Your task to perform on an android device: check google app version Image 0: 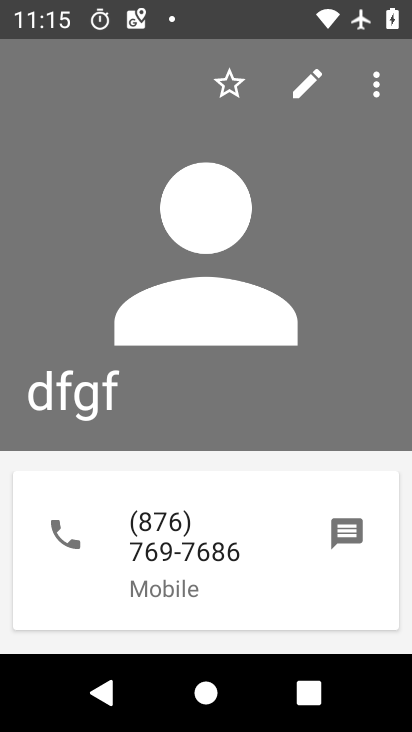
Step 0: press home button
Your task to perform on an android device: check google app version Image 1: 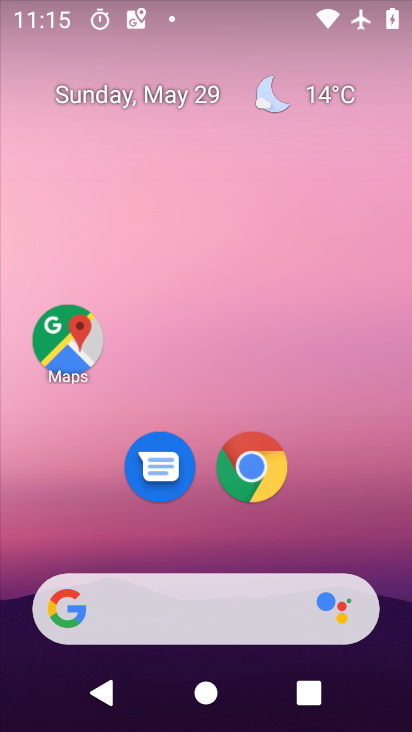
Step 1: drag from (210, 535) to (216, 138)
Your task to perform on an android device: check google app version Image 2: 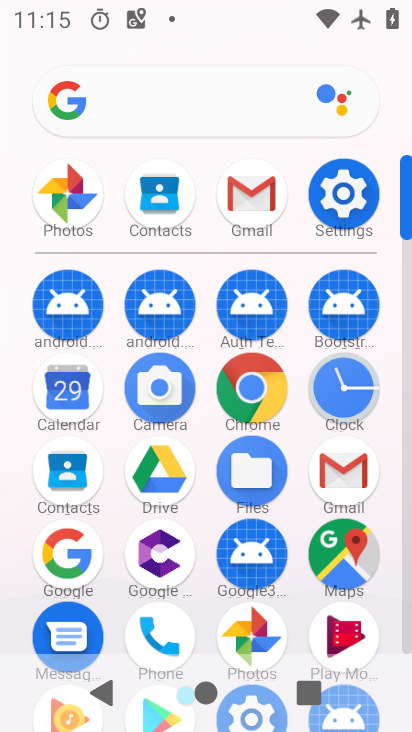
Step 2: click (72, 565)
Your task to perform on an android device: check google app version Image 3: 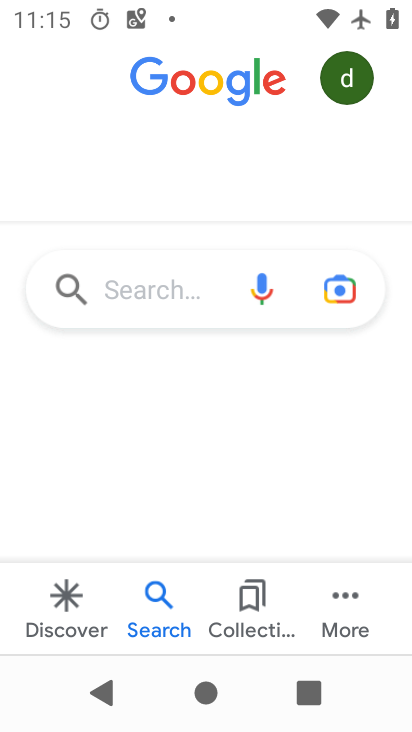
Step 3: click (361, 598)
Your task to perform on an android device: check google app version Image 4: 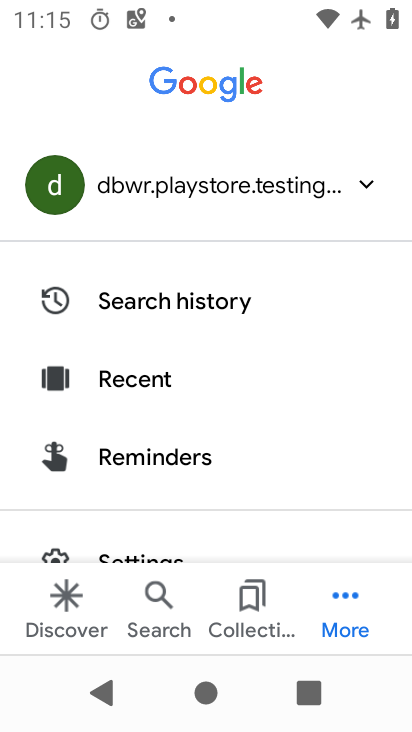
Step 4: drag from (209, 301) to (209, 207)
Your task to perform on an android device: check google app version Image 5: 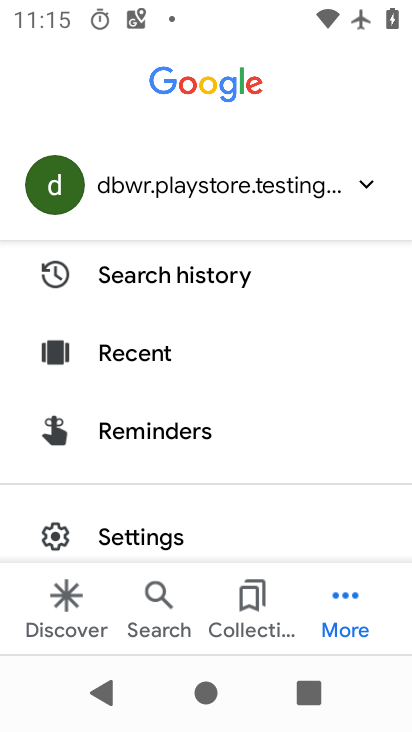
Step 5: drag from (217, 482) to (223, 286)
Your task to perform on an android device: check google app version Image 6: 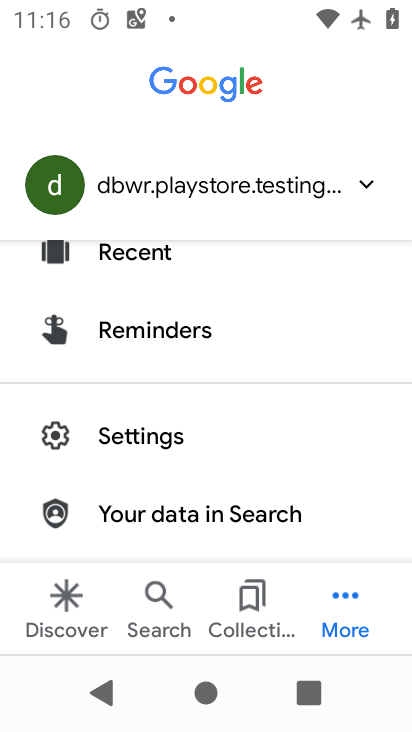
Step 6: click (181, 434)
Your task to perform on an android device: check google app version Image 7: 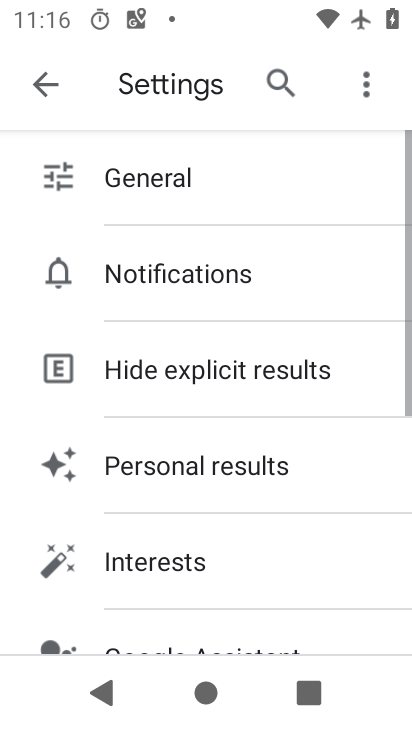
Step 7: drag from (200, 510) to (204, 211)
Your task to perform on an android device: check google app version Image 8: 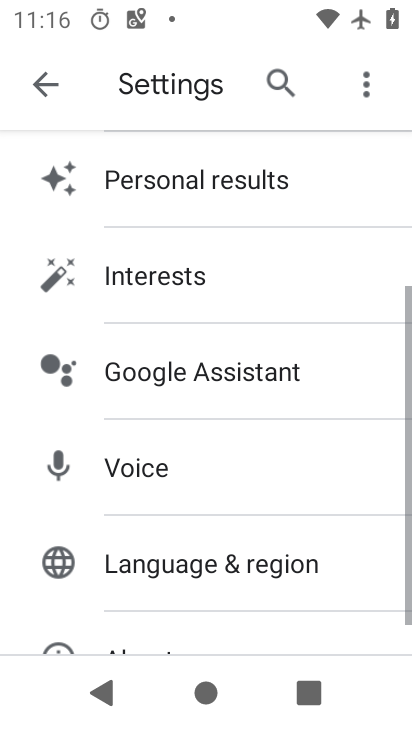
Step 8: drag from (225, 501) to (215, 225)
Your task to perform on an android device: check google app version Image 9: 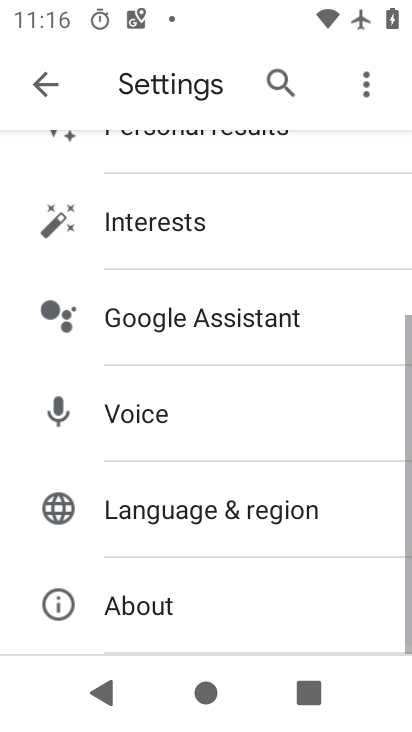
Step 9: drag from (229, 578) to (239, 288)
Your task to perform on an android device: check google app version Image 10: 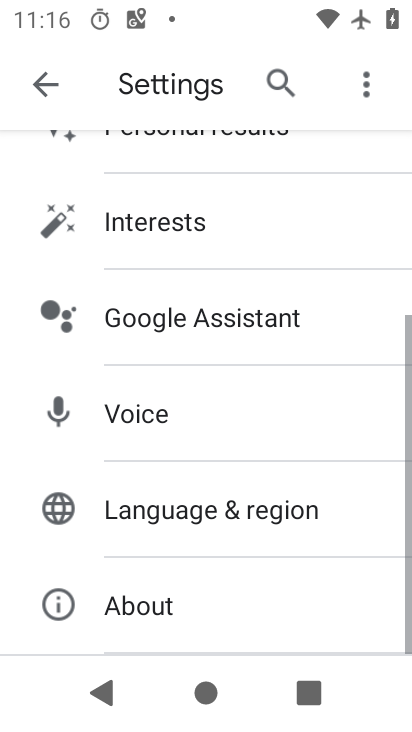
Step 10: click (219, 620)
Your task to perform on an android device: check google app version Image 11: 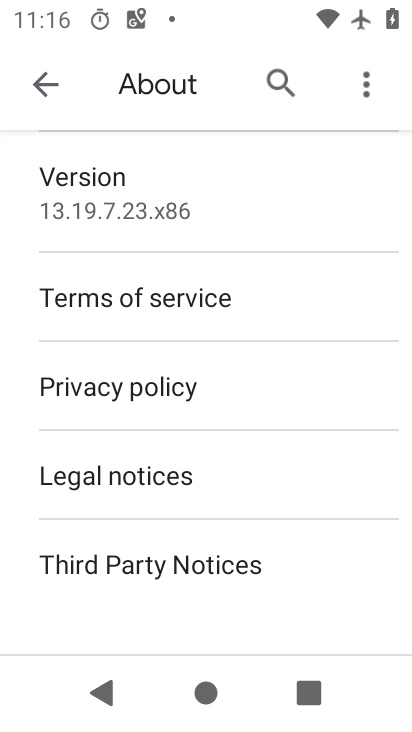
Step 11: click (167, 202)
Your task to perform on an android device: check google app version Image 12: 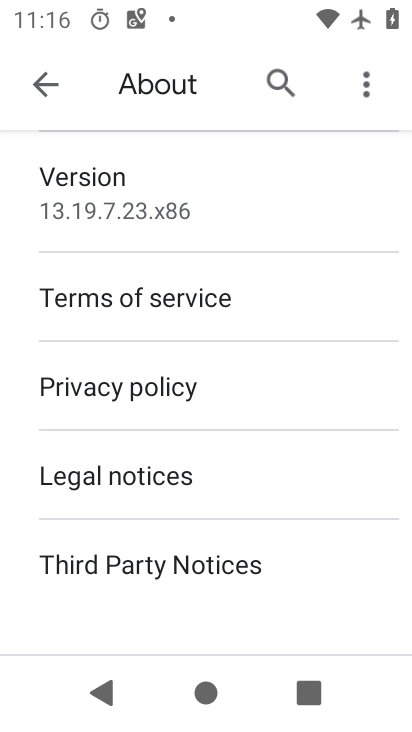
Step 12: click (108, 203)
Your task to perform on an android device: check google app version Image 13: 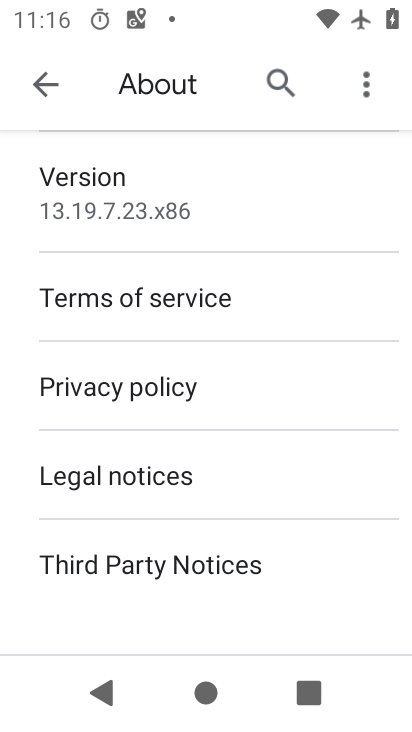
Step 13: task complete